Your task to perform on an android device: toggle pop-ups in chrome Image 0: 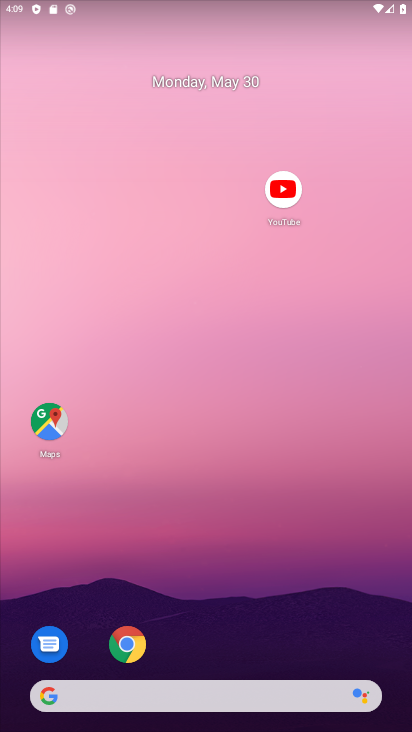
Step 0: click (136, 640)
Your task to perform on an android device: toggle pop-ups in chrome Image 1: 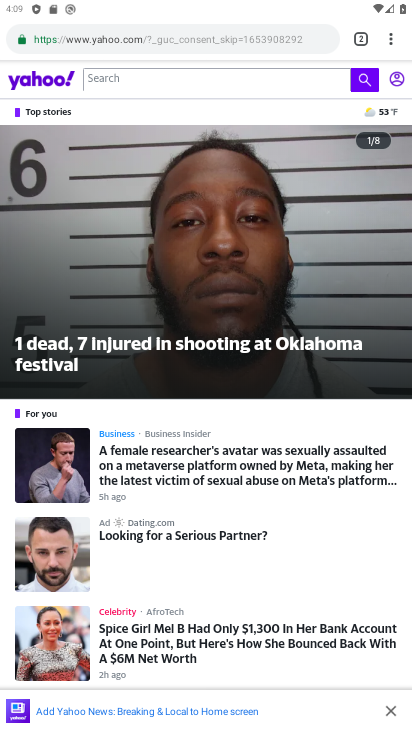
Step 1: click (386, 40)
Your task to perform on an android device: toggle pop-ups in chrome Image 2: 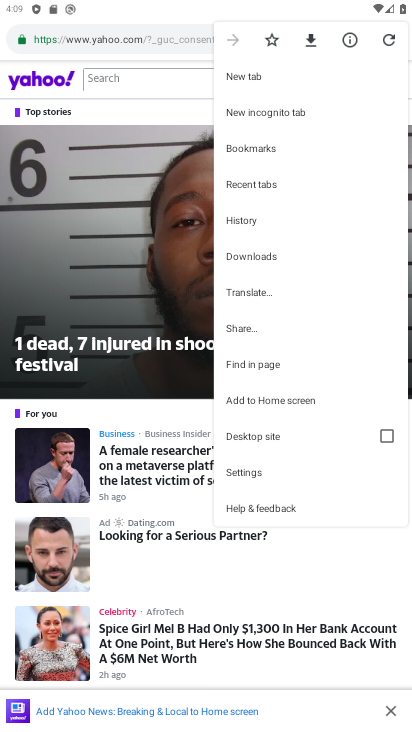
Step 2: click (264, 474)
Your task to perform on an android device: toggle pop-ups in chrome Image 3: 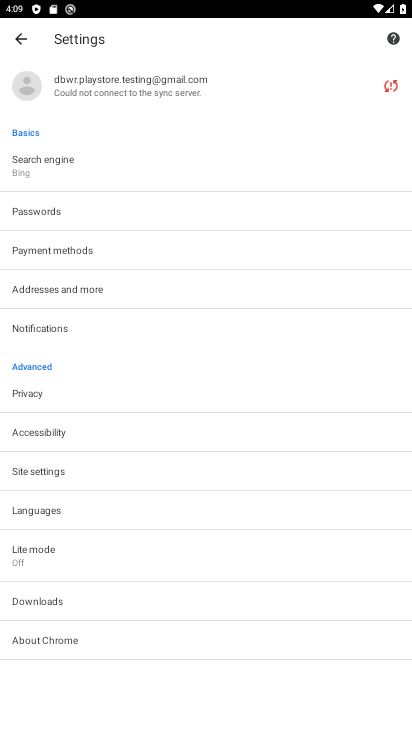
Step 3: click (264, 474)
Your task to perform on an android device: toggle pop-ups in chrome Image 4: 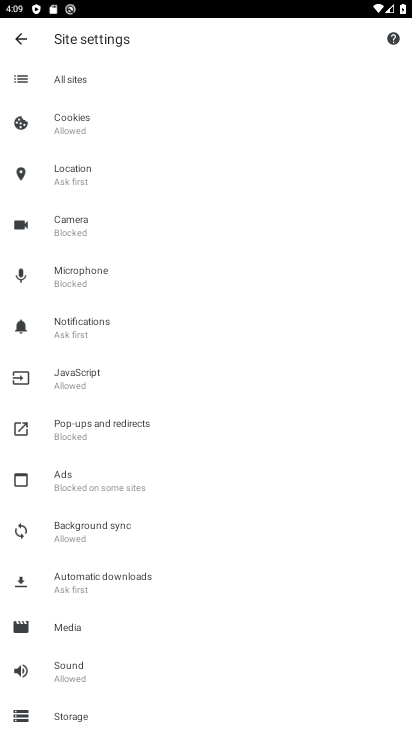
Step 4: click (165, 425)
Your task to perform on an android device: toggle pop-ups in chrome Image 5: 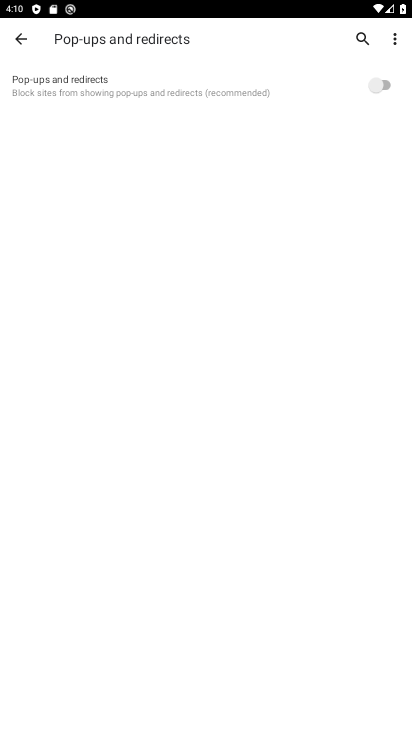
Step 5: click (391, 79)
Your task to perform on an android device: toggle pop-ups in chrome Image 6: 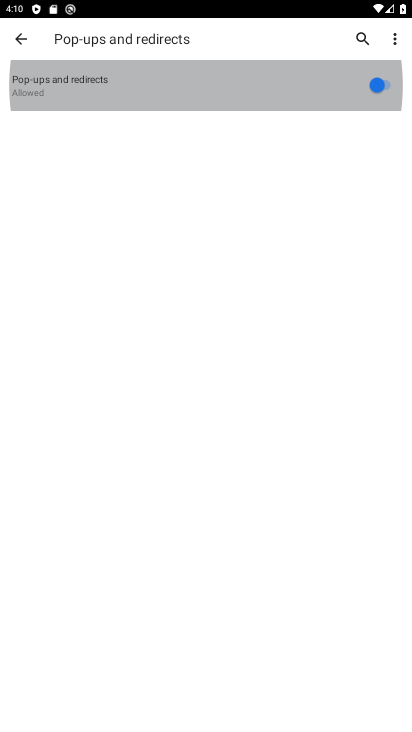
Step 6: click (391, 79)
Your task to perform on an android device: toggle pop-ups in chrome Image 7: 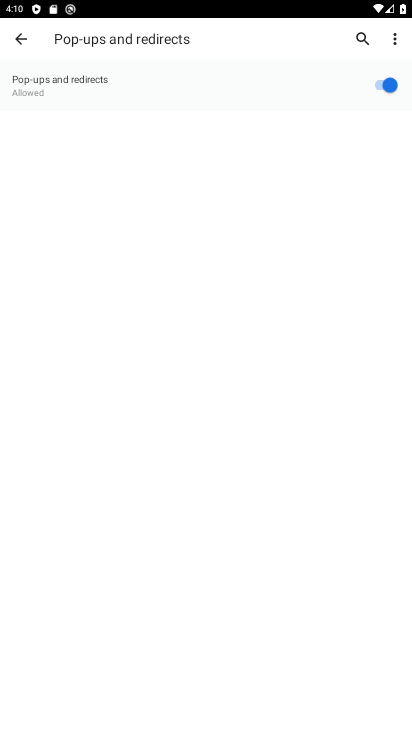
Step 7: click (391, 79)
Your task to perform on an android device: toggle pop-ups in chrome Image 8: 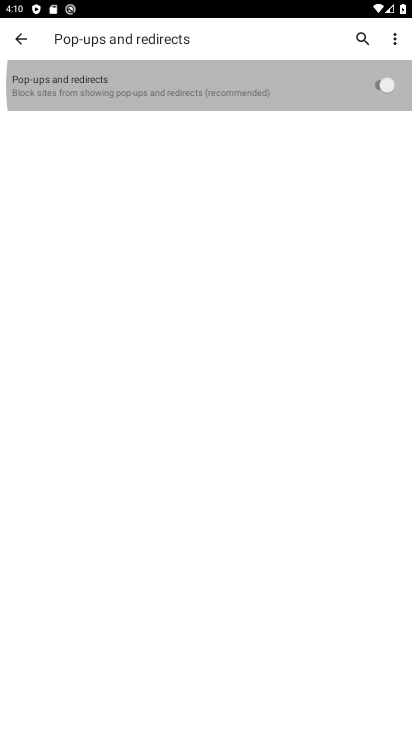
Step 8: click (391, 79)
Your task to perform on an android device: toggle pop-ups in chrome Image 9: 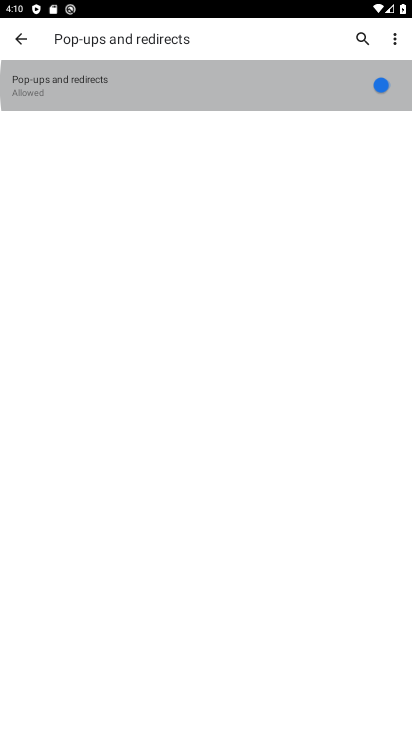
Step 9: click (391, 79)
Your task to perform on an android device: toggle pop-ups in chrome Image 10: 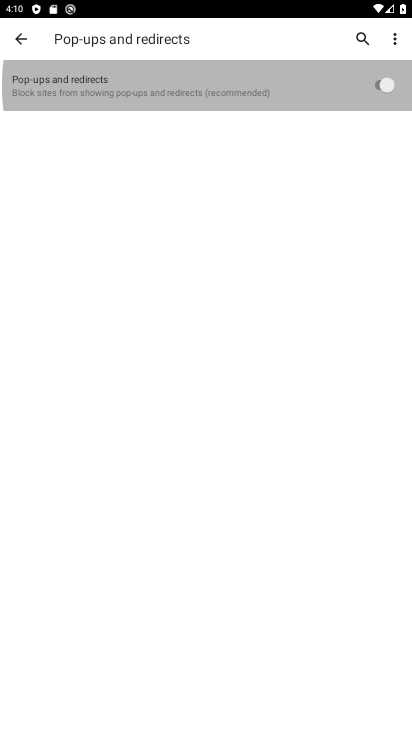
Step 10: click (391, 79)
Your task to perform on an android device: toggle pop-ups in chrome Image 11: 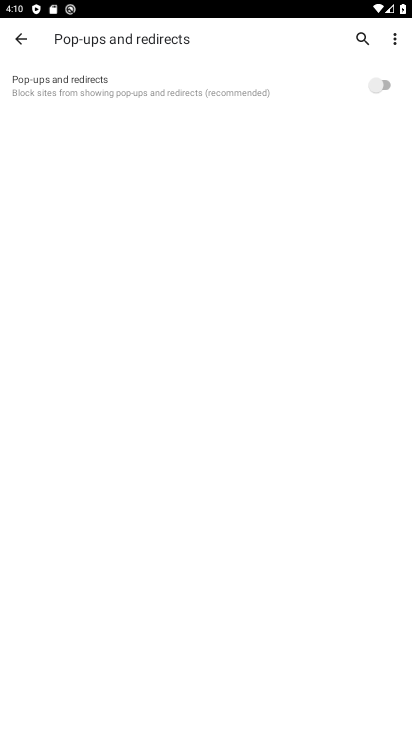
Step 11: task complete